Your task to perform on an android device: Open the web browser Image 0: 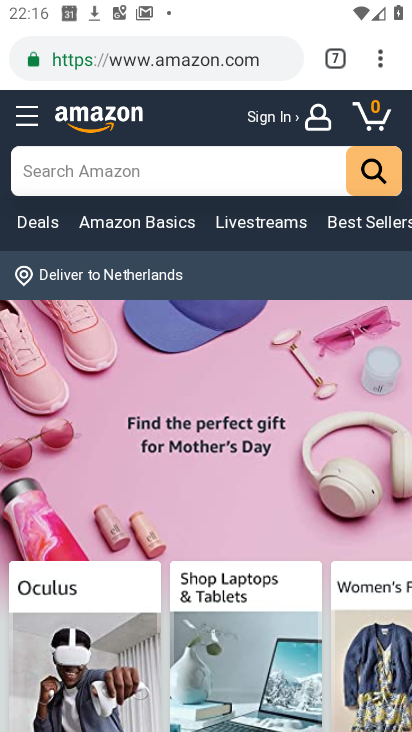
Step 0: press home button
Your task to perform on an android device: Open the web browser Image 1: 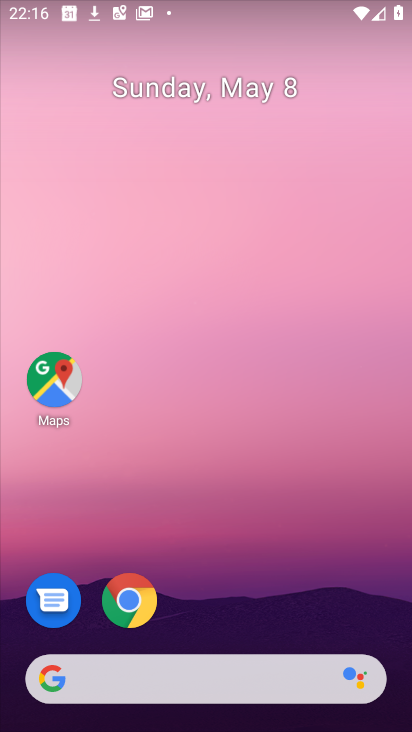
Step 1: drag from (323, 712) to (277, 182)
Your task to perform on an android device: Open the web browser Image 2: 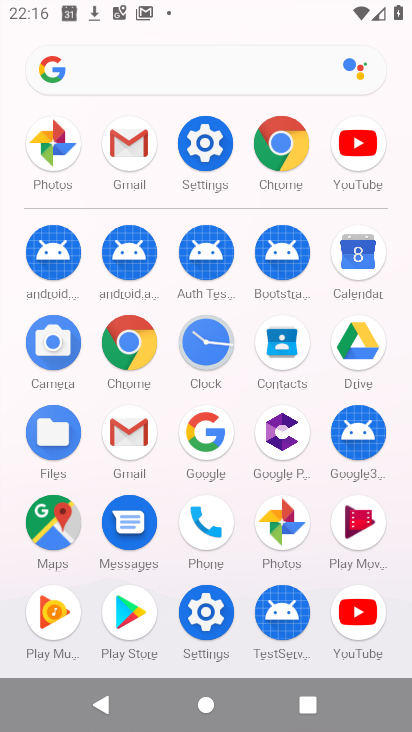
Step 2: click (291, 141)
Your task to perform on an android device: Open the web browser Image 3: 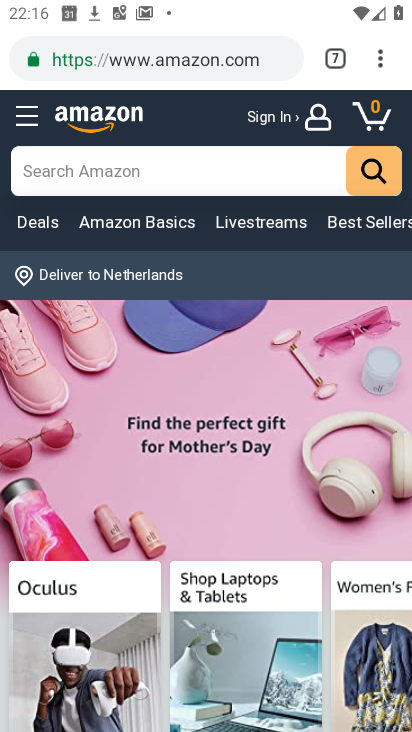
Step 3: click (329, 58)
Your task to perform on an android device: Open the web browser Image 4: 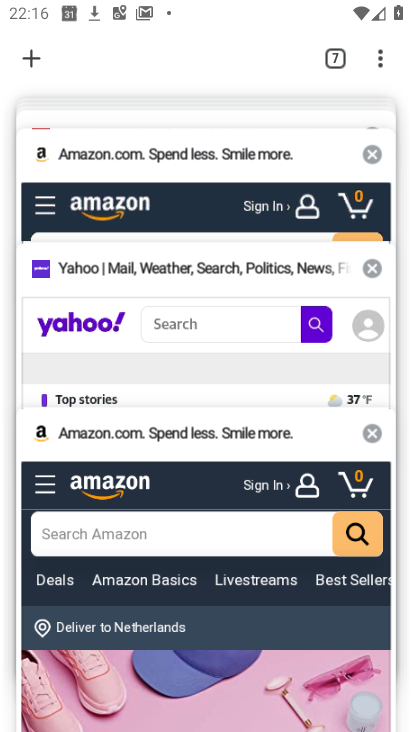
Step 4: click (30, 70)
Your task to perform on an android device: Open the web browser Image 5: 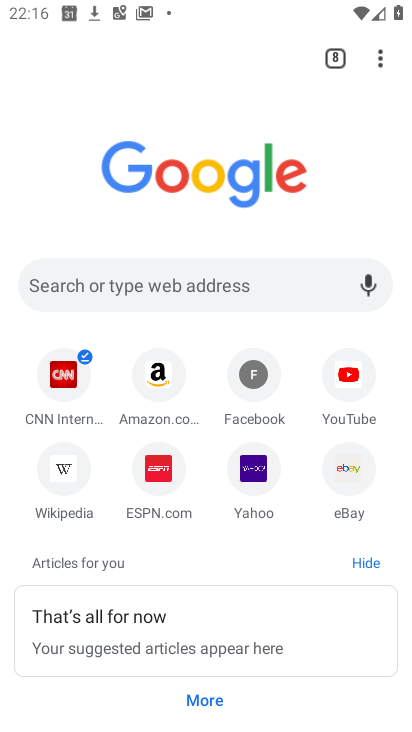
Step 5: click (130, 283)
Your task to perform on an android device: Open the web browser Image 6: 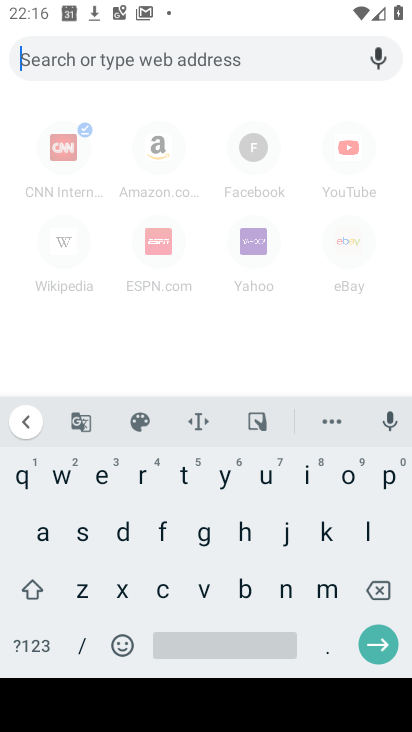
Step 6: task complete